Your task to perform on an android device: Toggle the flashlight Image 0: 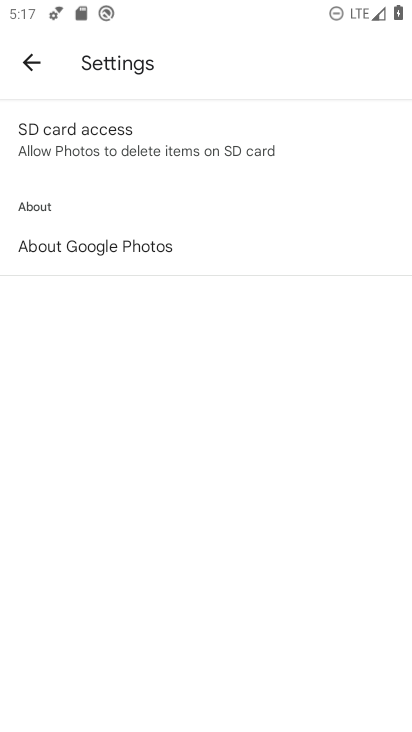
Step 0: press home button
Your task to perform on an android device: Toggle the flashlight Image 1: 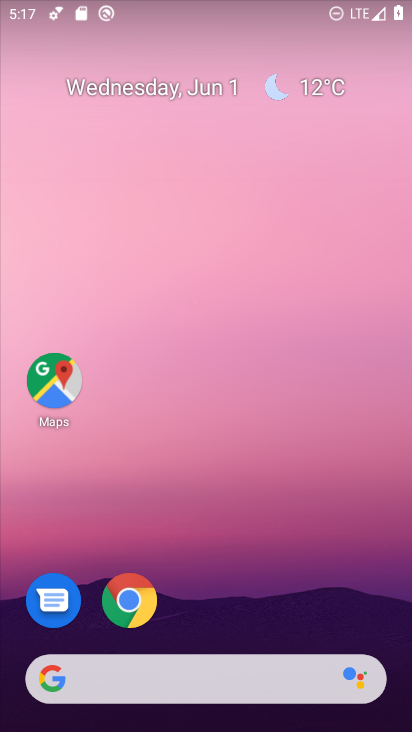
Step 1: drag from (240, 29) to (242, 596)
Your task to perform on an android device: Toggle the flashlight Image 2: 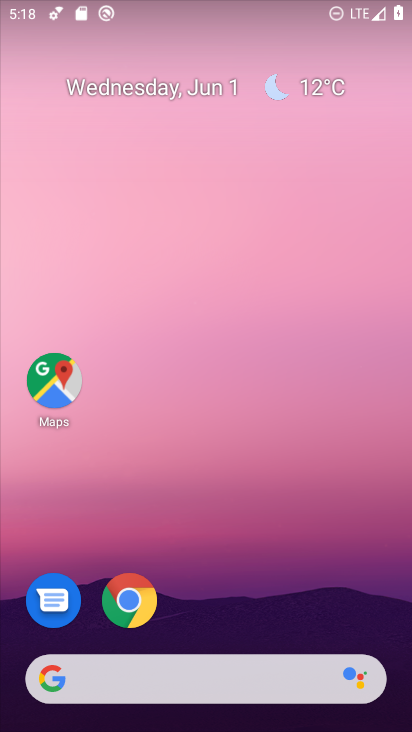
Step 2: drag from (242, 19) to (238, 414)
Your task to perform on an android device: Toggle the flashlight Image 3: 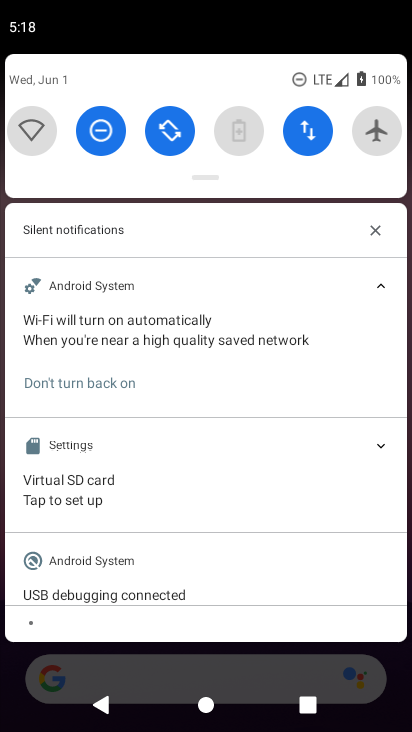
Step 3: drag from (213, 180) to (213, 535)
Your task to perform on an android device: Toggle the flashlight Image 4: 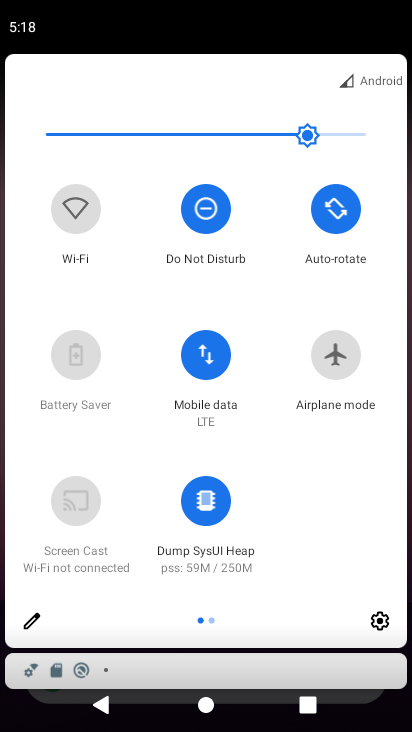
Step 4: click (26, 617)
Your task to perform on an android device: Toggle the flashlight Image 5: 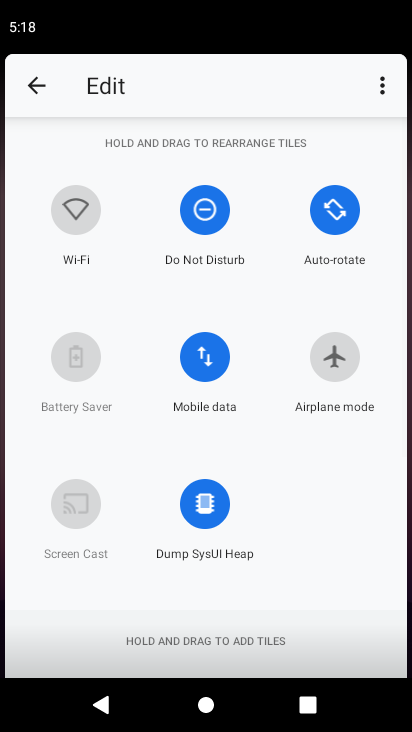
Step 5: task complete